Your task to perform on an android device: Go to Wikipedia Image 0: 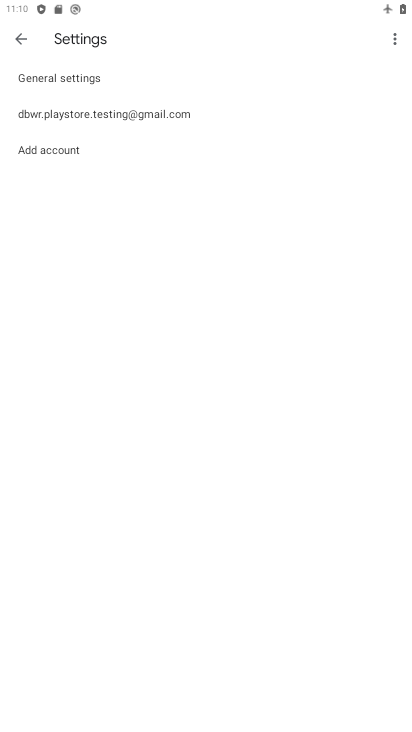
Step 0: press home button
Your task to perform on an android device: Go to Wikipedia Image 1: 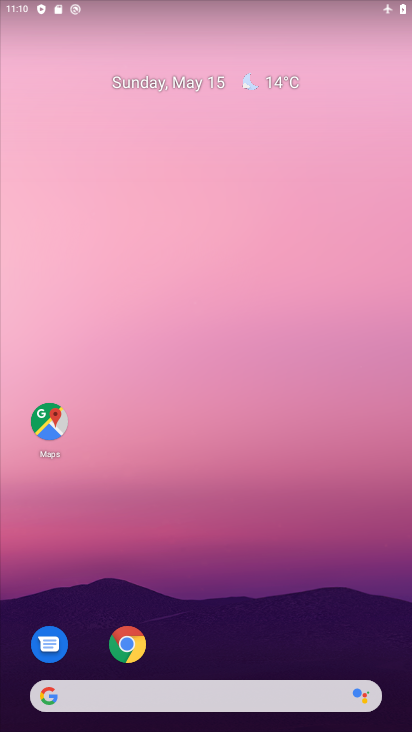
Step 1: click (135, 636)
Your task to perform on an android device: Go to Wikipedia Image 2: 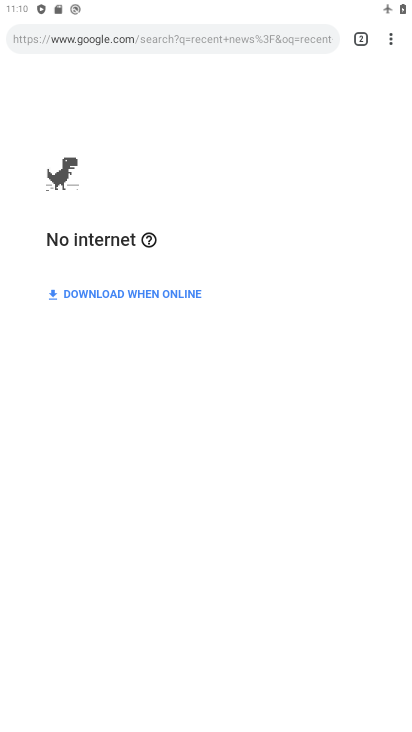
Step 2: click (360, 40)
Your task to perform on an android device: Go to Wikipedia Image 3: 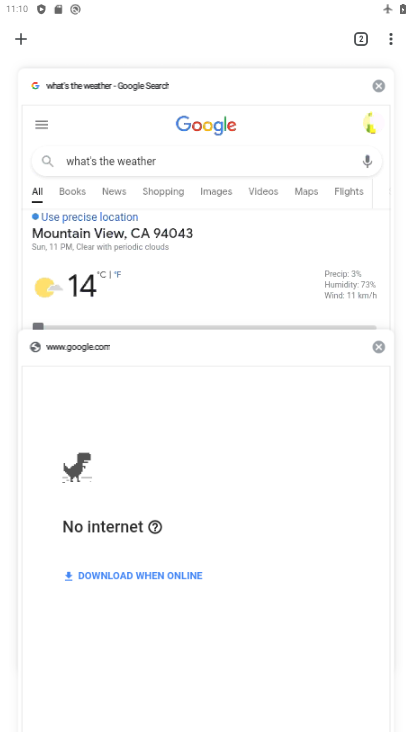
Step 3: click (18, 37)
Your task to perform on an android device: Go to Wikipedia Image 4: 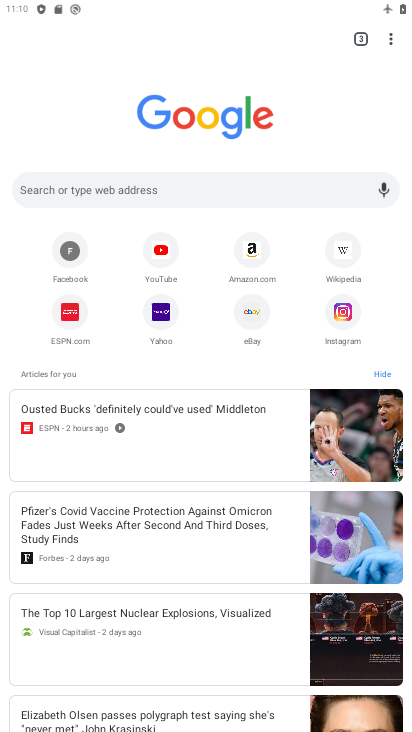
Step 4: click (323, 253)
Your task to perform on an android device: Go to Wikipedia Image 5: 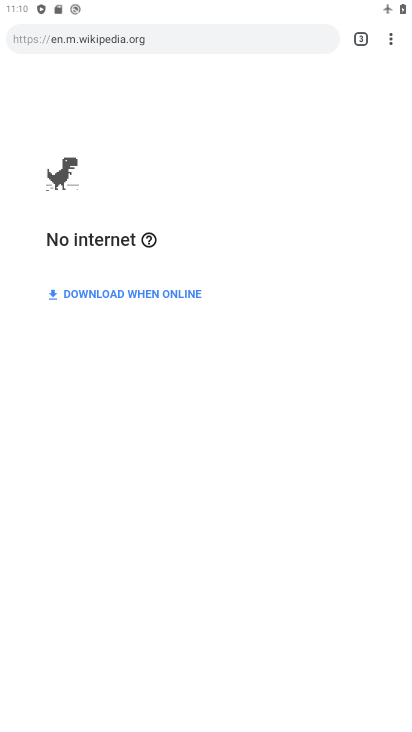
Step 5: task complete